Your task to perform on an android device: Go to Google Image 0: 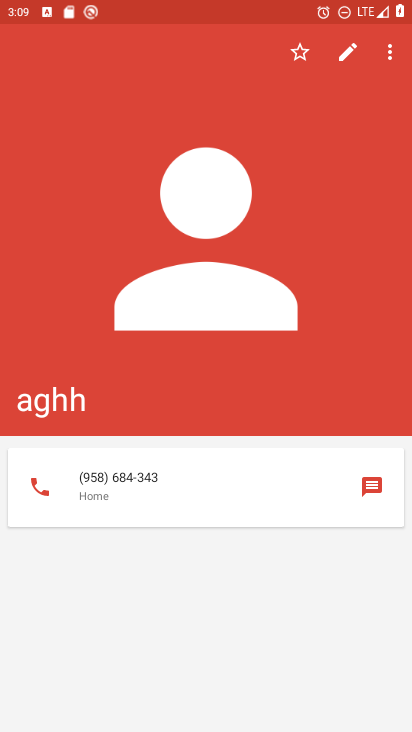
Step 0: press home button
Your task to perform on an android device: Go to Google Image 1: 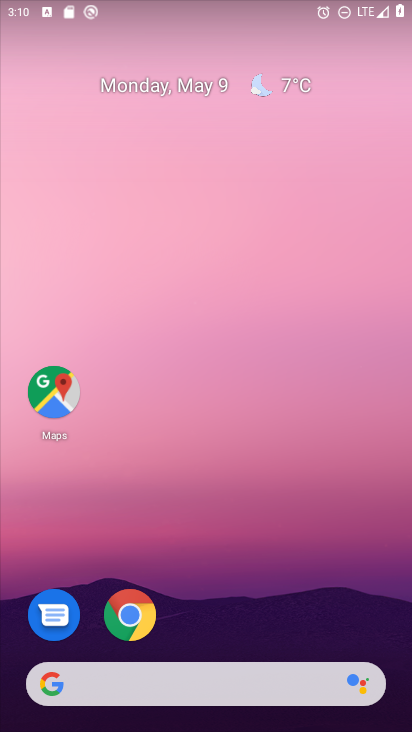
Step 1: click (131, 617)
Your task to perform on an android device: Go to Google Image 2: 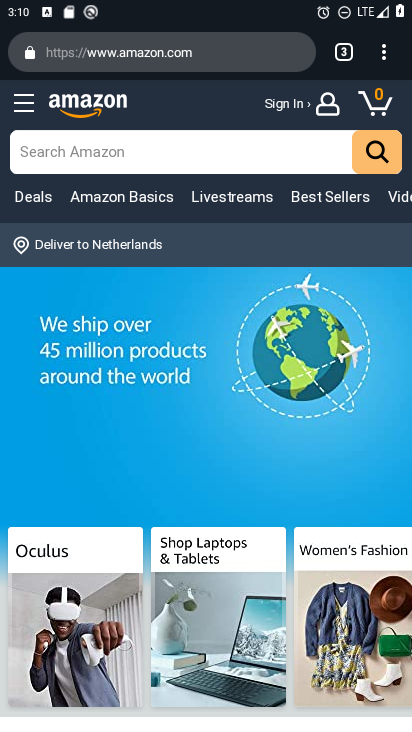
Step 2: task complete